Your task to perform on an android device: What's the weather? Image 0: 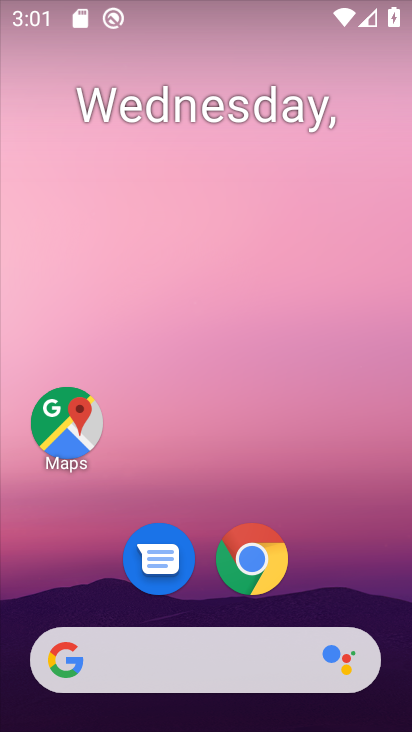
Step 0: click (225, 656)
Your task to perform on an android device: What's the weather? Image 1: 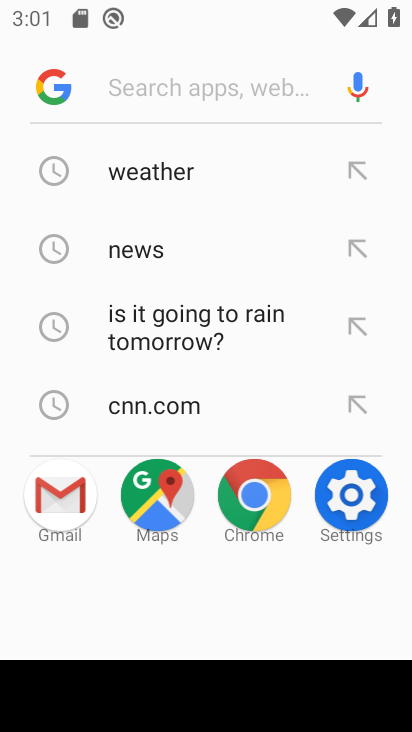
Step 1: click (186, 179)
Your task to perform on an android device: What's the weather? Image 2: 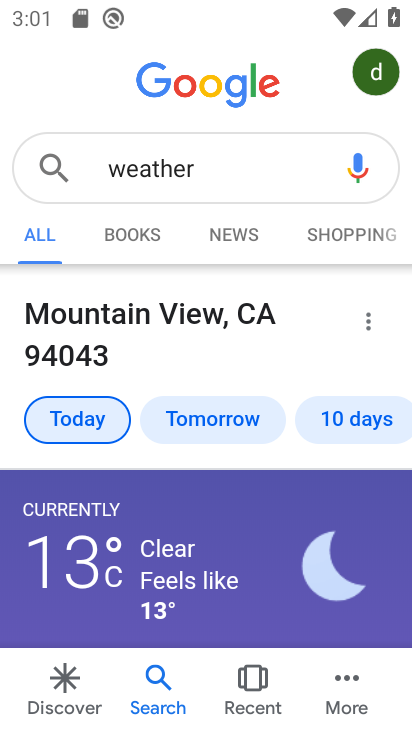
Step 2: task complete